Your task to perform on an android device: open device folders in google photos Image 0: 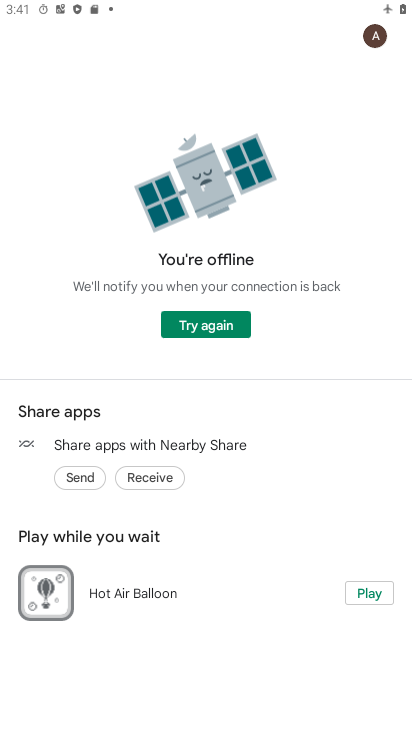
Step 0: task impossible